Your task to perform on an android device: add a contact Image 0: 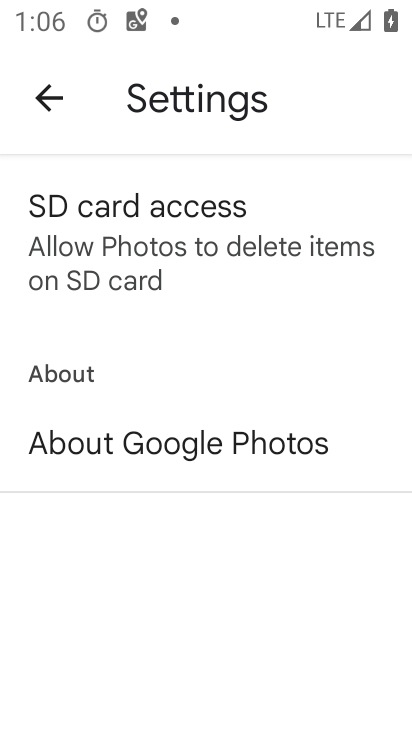
Step 0: press home button
Your task to perform on an android device: add a contact Image 1: 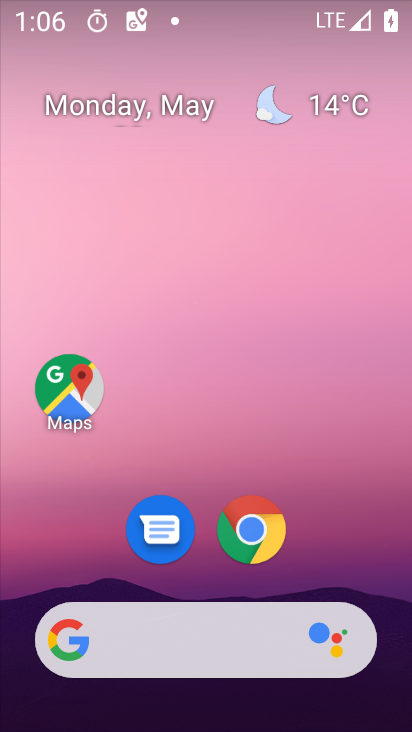
Step 1: drag from (376, 556) to (355, 160)
Your task to perform on an android device: add a contact Image 2: 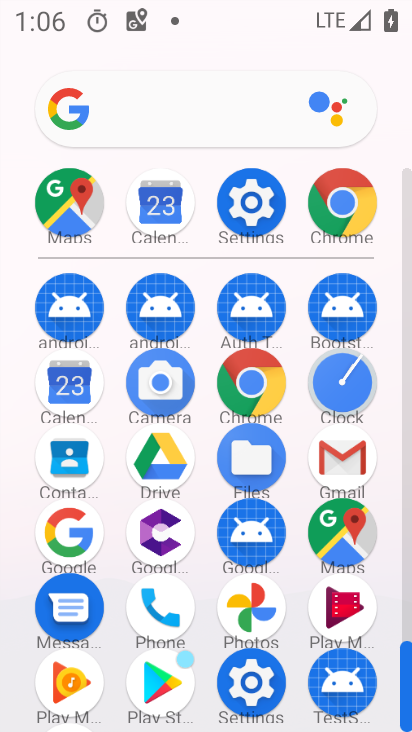
Step 2: click (75, 471)
Your task to perform on an android device: add a contact Image 3: 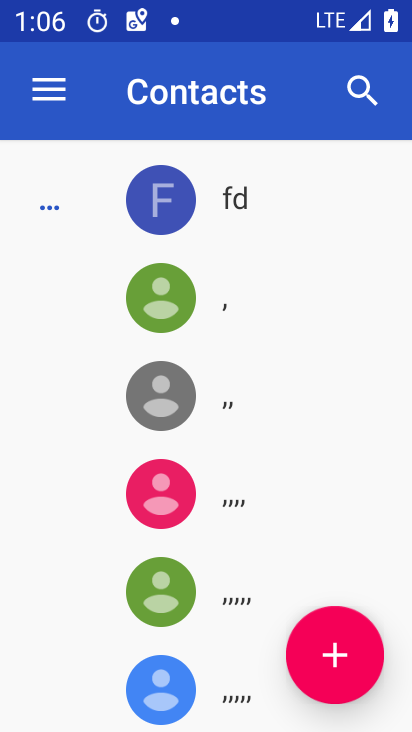
Step 3: click (367, 648)
Your task to perform on an android device: add a contact Image 4: 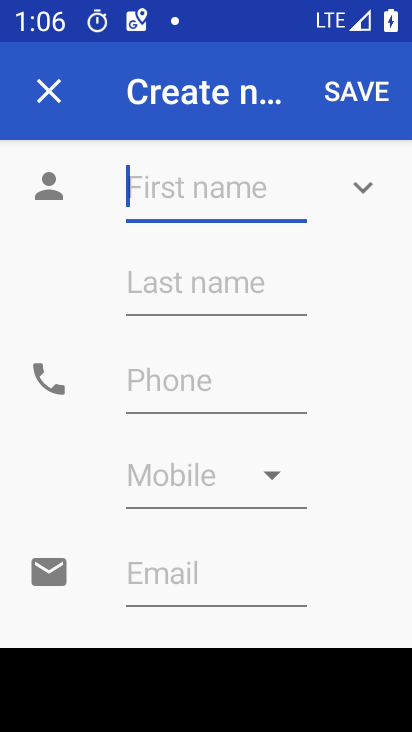
Step 4: click (223, 203)
Your task to perform on an android device: add a contact Image 5: 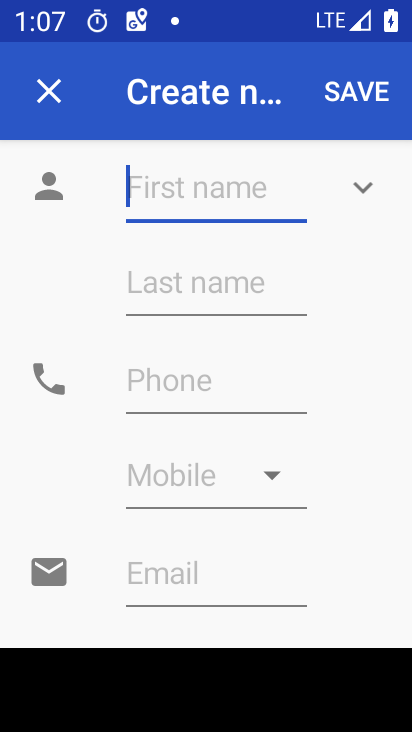
Step 5: type "my"
Your task to perform on an android device: add a contact Image 6: 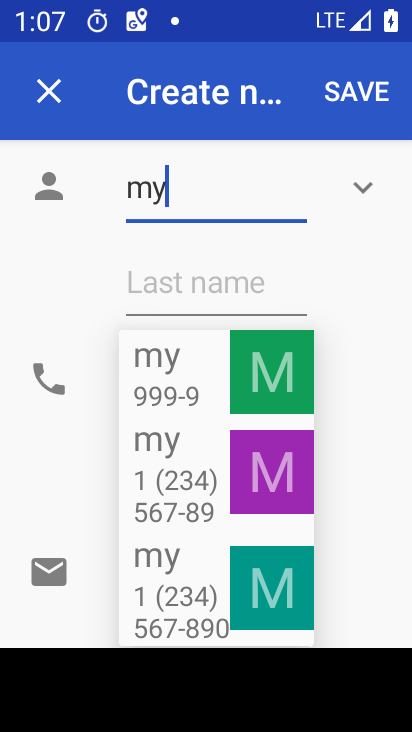
Step 6: click (358, 356)
Your task to perform on an android device: add a contact Image 7: 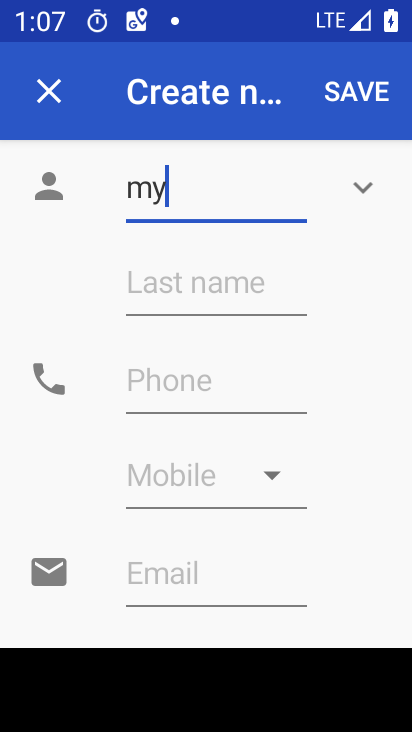
Step 7: click (223, 398)
Your task to perform on an android device: add a contact Image 8: 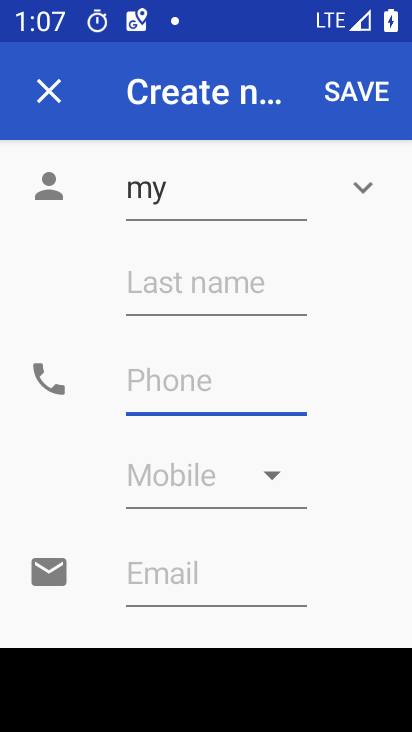
Step 8: type "1234567890"
Your task to perform on an android device: add a contact Image 9: 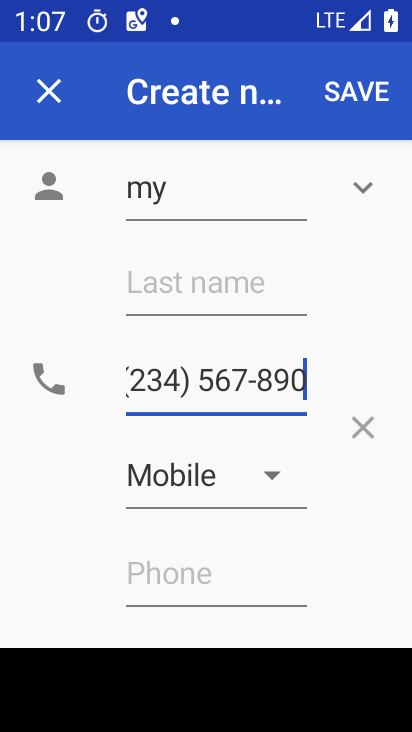
Step 9: click (363, 118)
Your task to perform on an android device: add a contact Image 10: 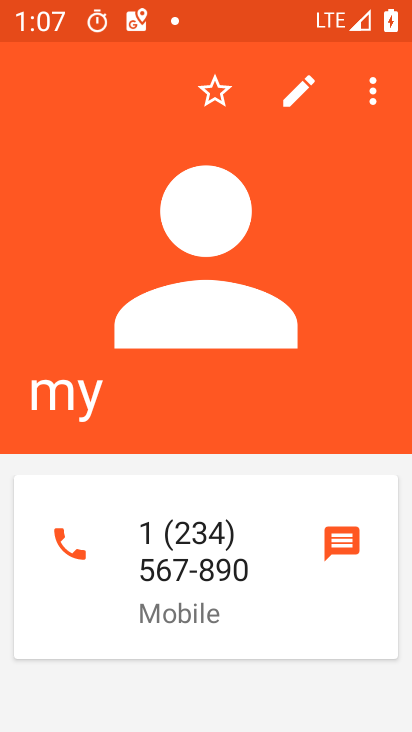
Step 10: task complete